Your task to perform on an android device: turn on the 12-hour format for clock Image 0: 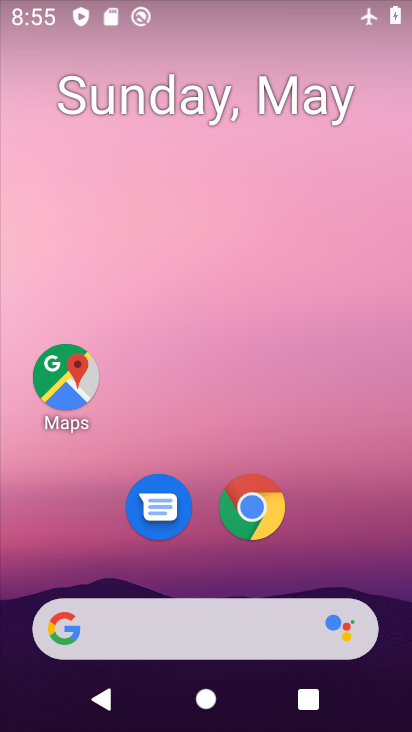
Step 0: drag from (211, 580) to (243, 8)
Your task to perform on an android device: turn on the 12-hour format for clock Image 1: 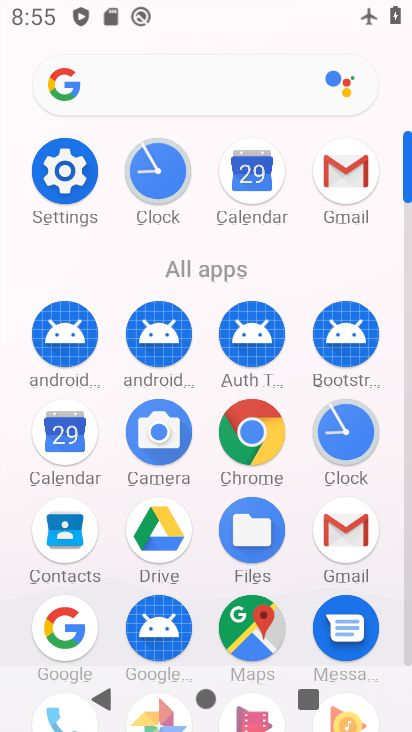
Step 1: drag from (202, 541) to (255, 8)
Your task to perform on an android device: turn on the 12-hour format for clock Image 2: 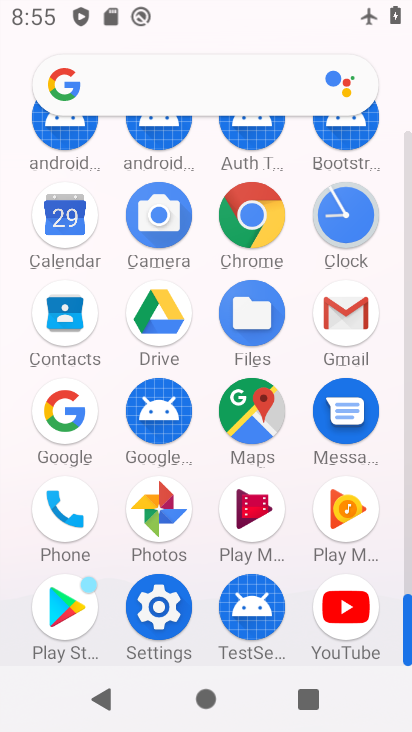
Step 2: click (157, 611)
Your task to perform on an android device: turn on the 12-hour format for clock Image 3: 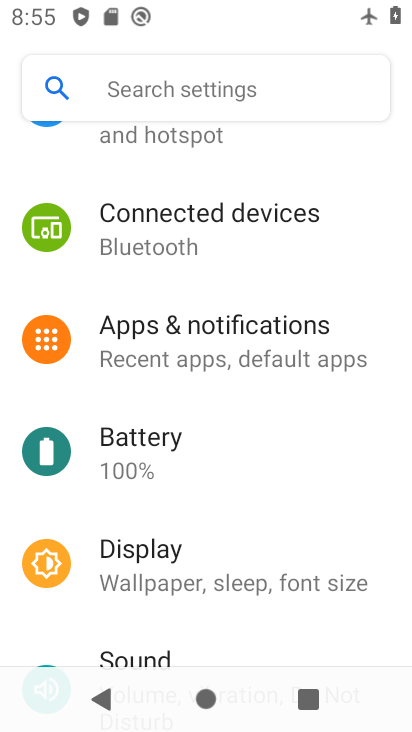
Step 3: drag from (238, 317) to (245, 2)
Your task to perform on an android device: turn on the 12-hour format for clock Image 4: 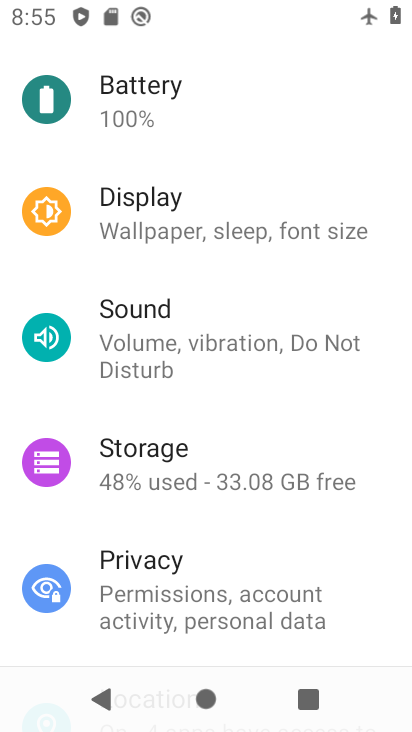
Step 4: drag from (172, 623) to (265, 3)
Your task to perform on an android device: turn on the 12-hour format for clock Image 5: 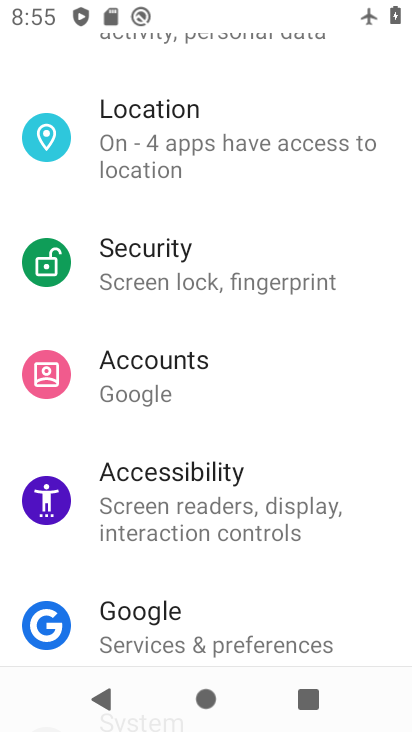
Step 5: drag from (188, 586) to (254, 21)
Your task to perform on an android device: turn on the 12-hour format for clock Image 6: 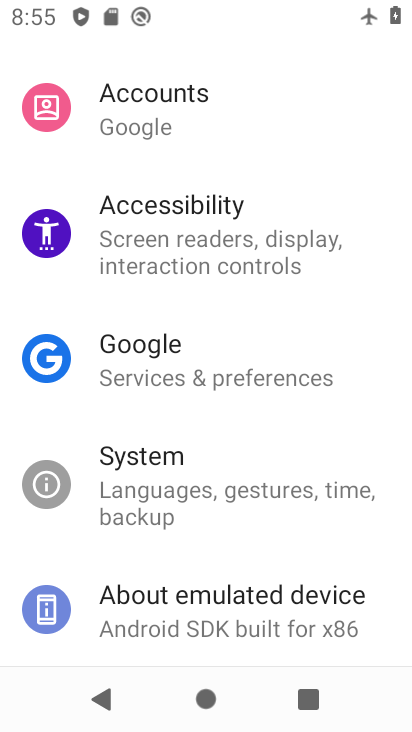
Step 6: click (214, 487)
Your task to perform on an android device: turn on the 12-hour format for clock Image 7: 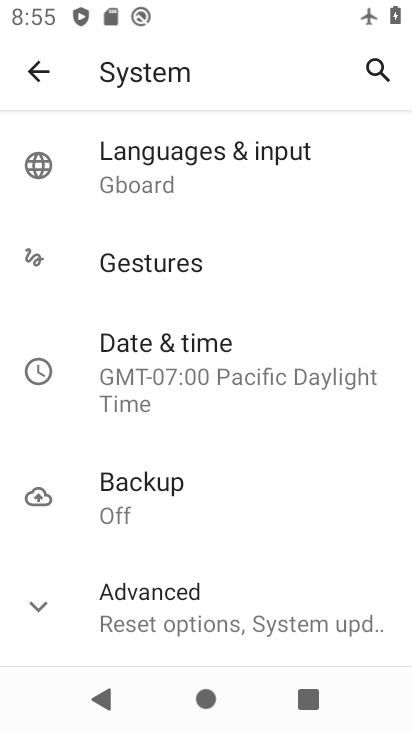
Step 7: click (197, 374)
Your task to perform on an android device: turn on the 12-hour format for clock Image 8: 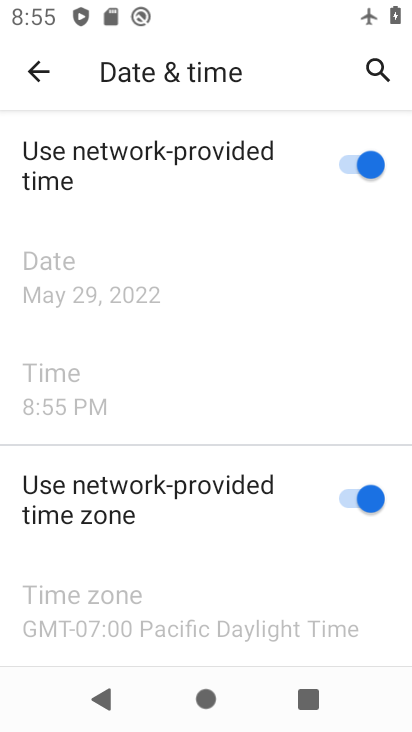
Step 8: task complete